Your task to perform on an android device: Go to Reddit.com Image 0: 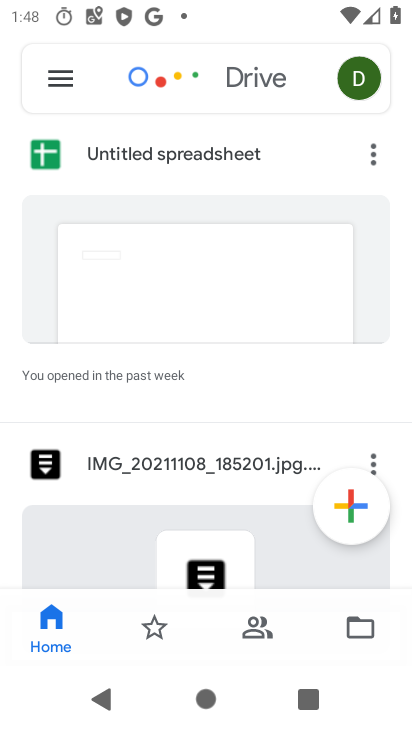
Step 0: press home button
Your task to perform on an android device: Go to Reddit.com Image 1: 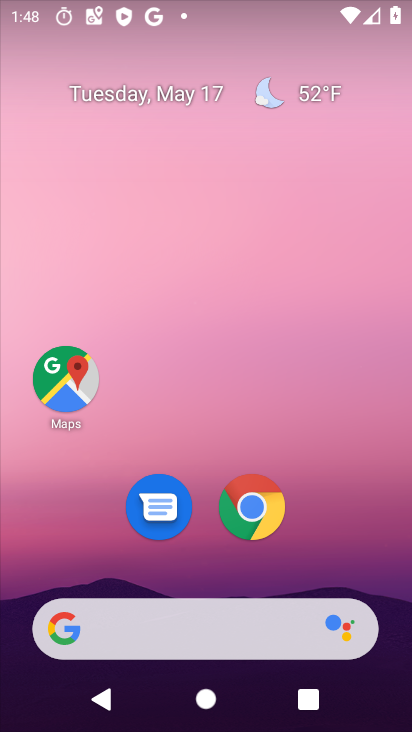
Step 1: drag from (215, 550) to (201, 230)
Your task to perform on an android device: Go to Reddit.com Image 2: 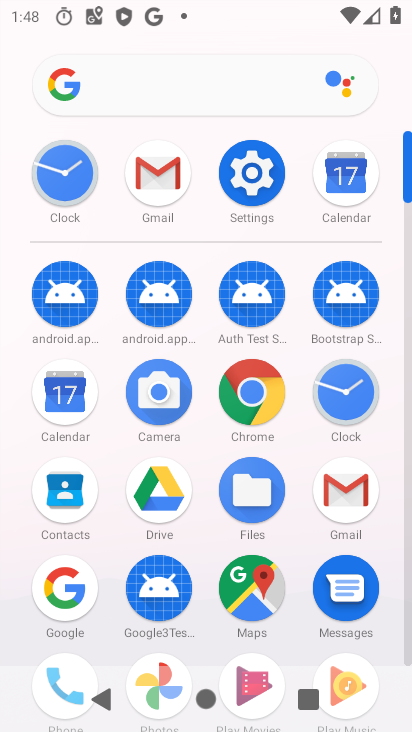
Step 2: click (69, 588)
Your task to perform on an android device: Go to Reddit.com Image 3: 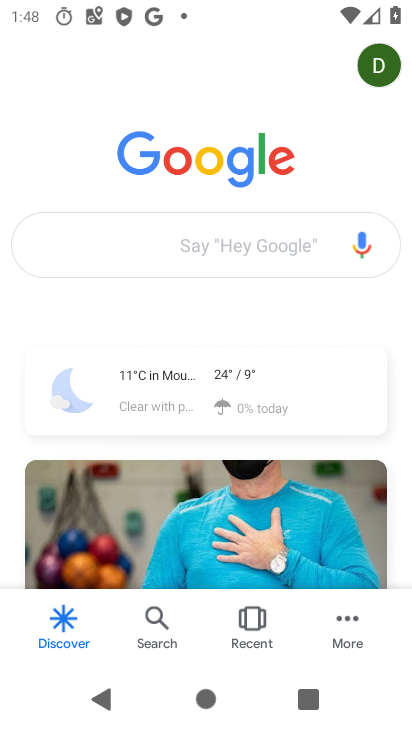
Step 3: click (182, 259)
Your task to perform on an android device: Go to Reddit.com Image 4: 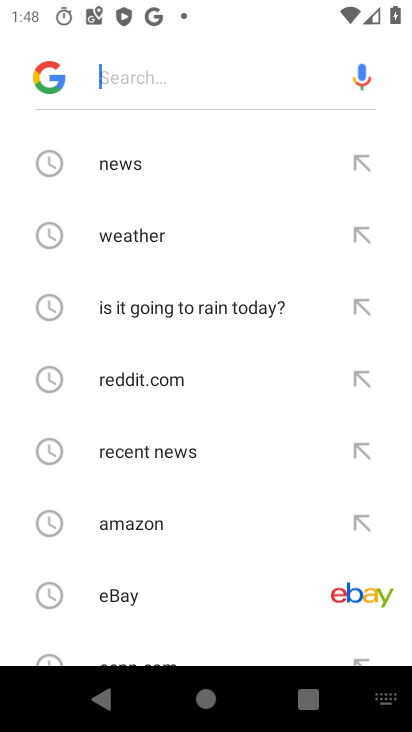
Step 4: drag from (205, 519) to (203, 454)
Your task to perform on an android device: Go to Reddit.com Image 5: 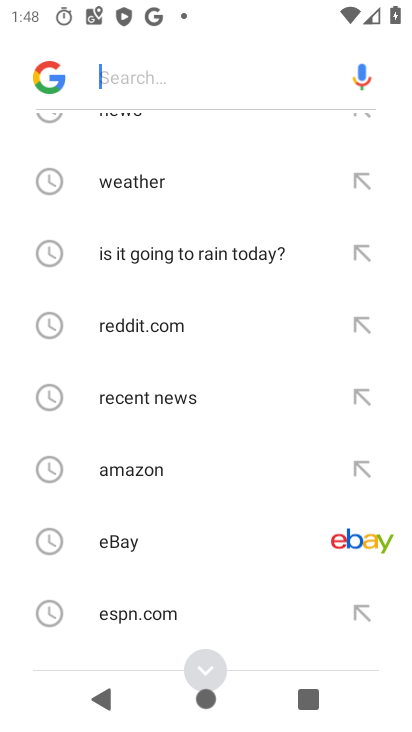
Step 5: click (137, 327)
Your task to perform on an android device: Go to Reddit.com Image 6: 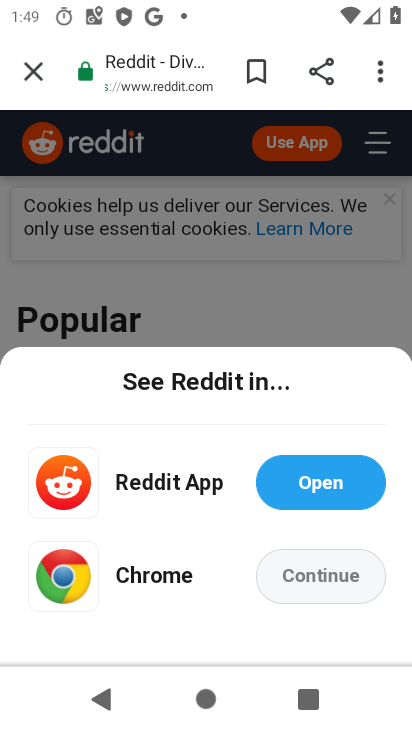
Step 6: task complete